Your task to perform on an android device: Open Chrome and go to settings Image 0: 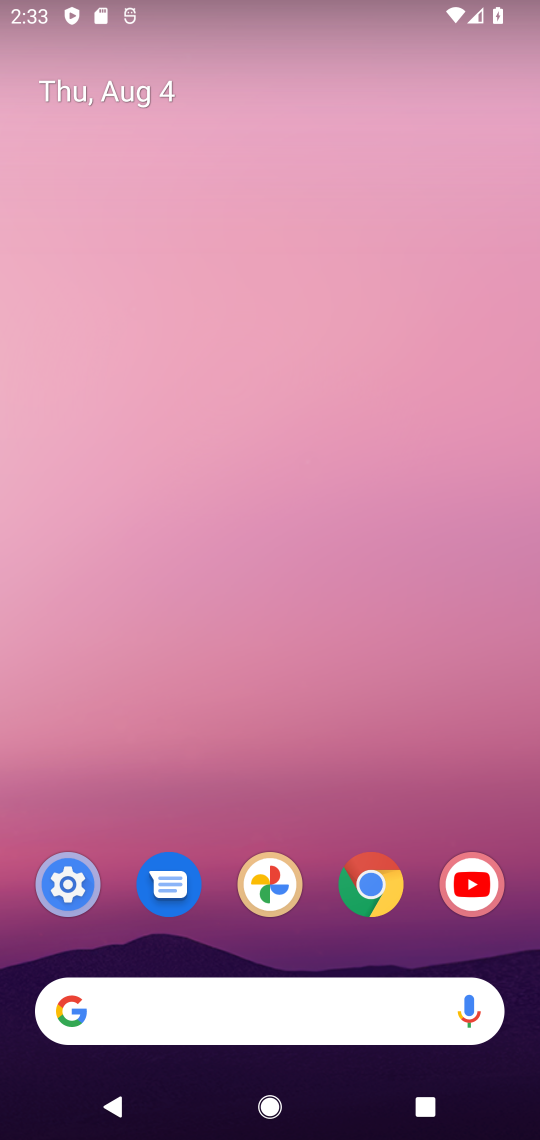
Step 0: drag from (289, 891) to (369, 337)
Your task to perform on an android device: Open Chrome and go to settings Image 1: 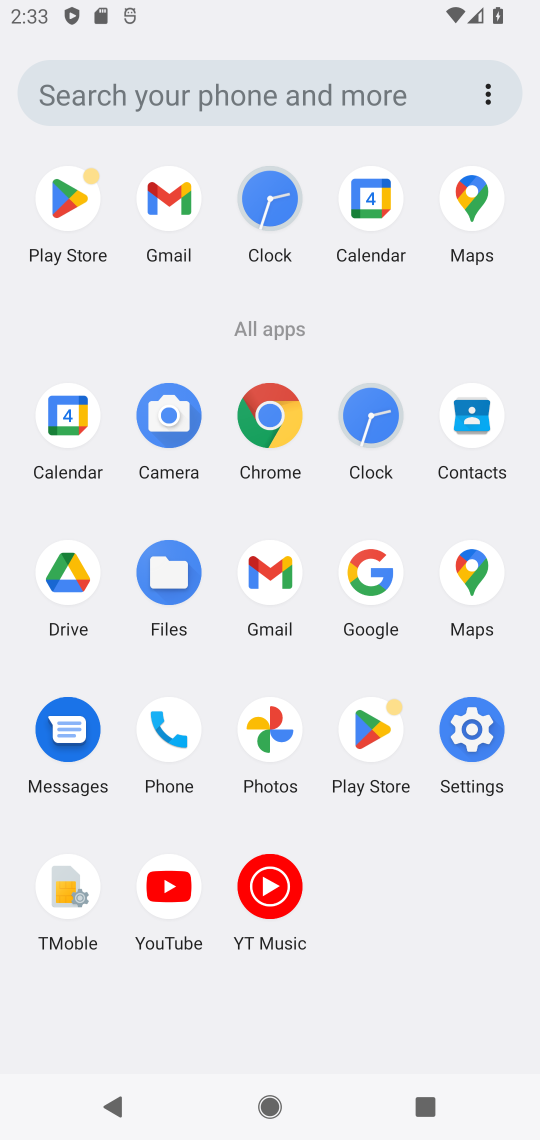
Step 1: click (266, 414)
Your task to perform on an android device: Open Chrome and go to settings Image 2: 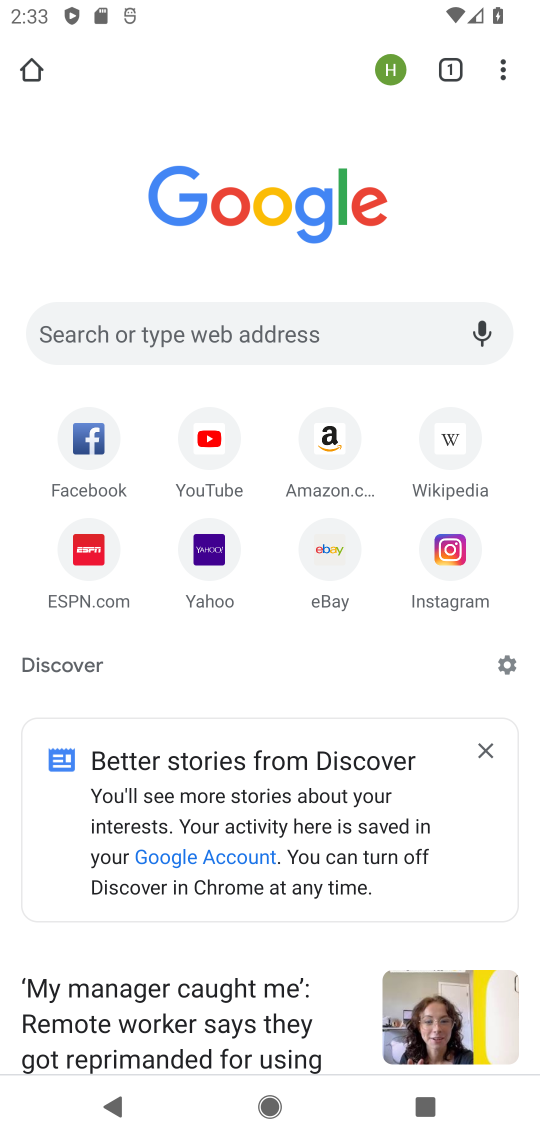
Step 2: click (518, 73)
Your task to perform on an android device: Open Chrome and go to settings Image 3: 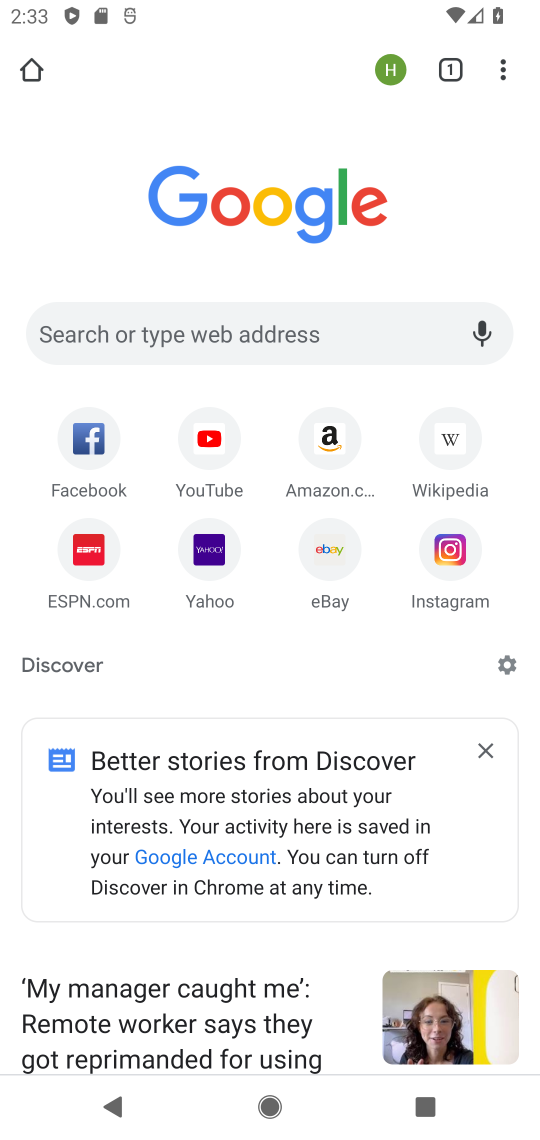
Step 3: click (518, 73)
Your task to perform on an android device: Open Chrome and go to settings Image 4: 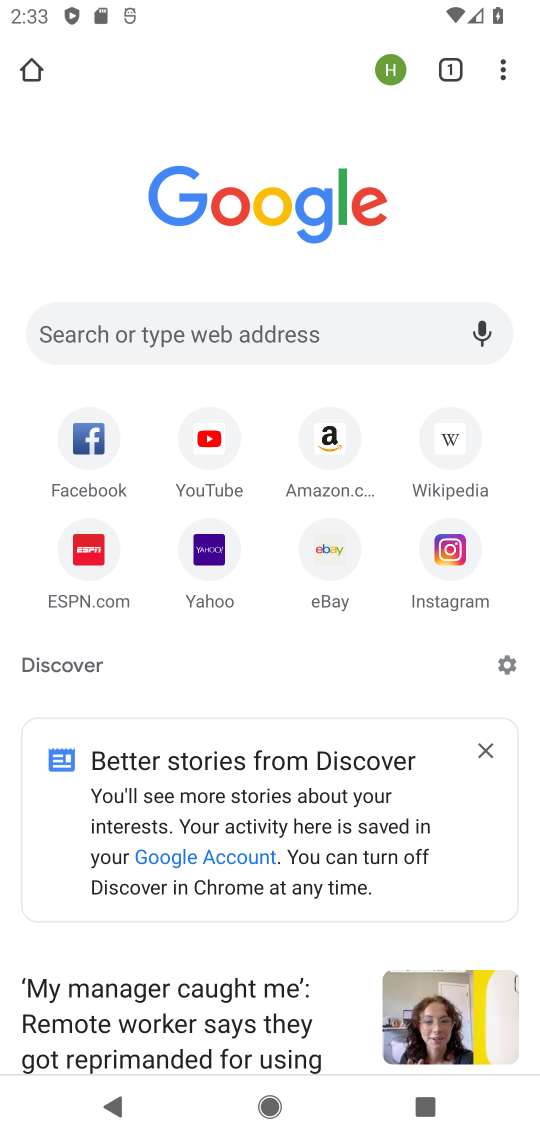
Step 4: click (521, 48)
Your task to perform on an android device: Open Chrome and go to settings Image 5: 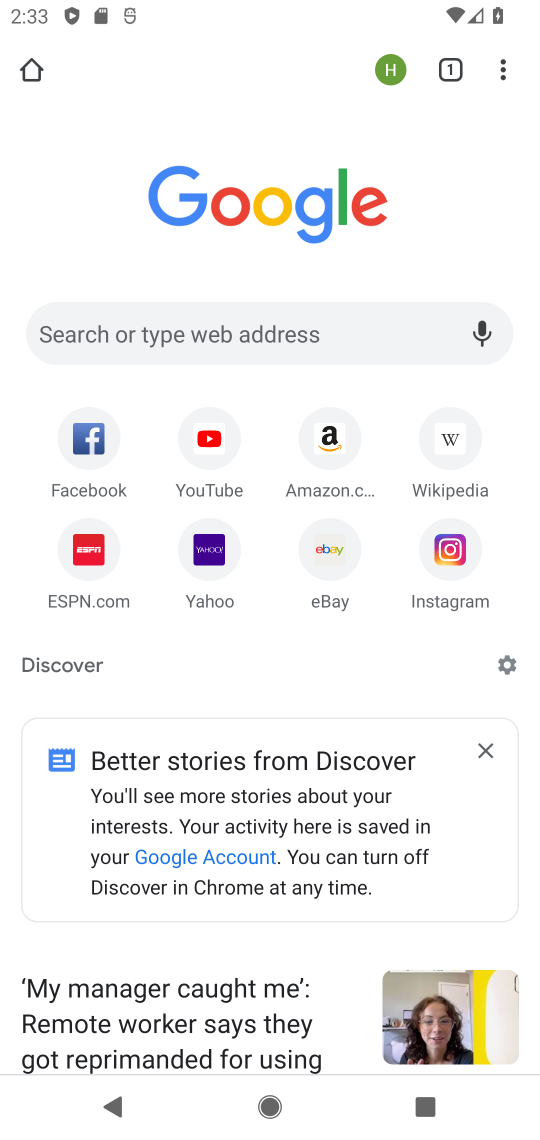
Step 5: click (514, 61)
Your task to perform on an android device: Open Chrome and go to settings Image 6: 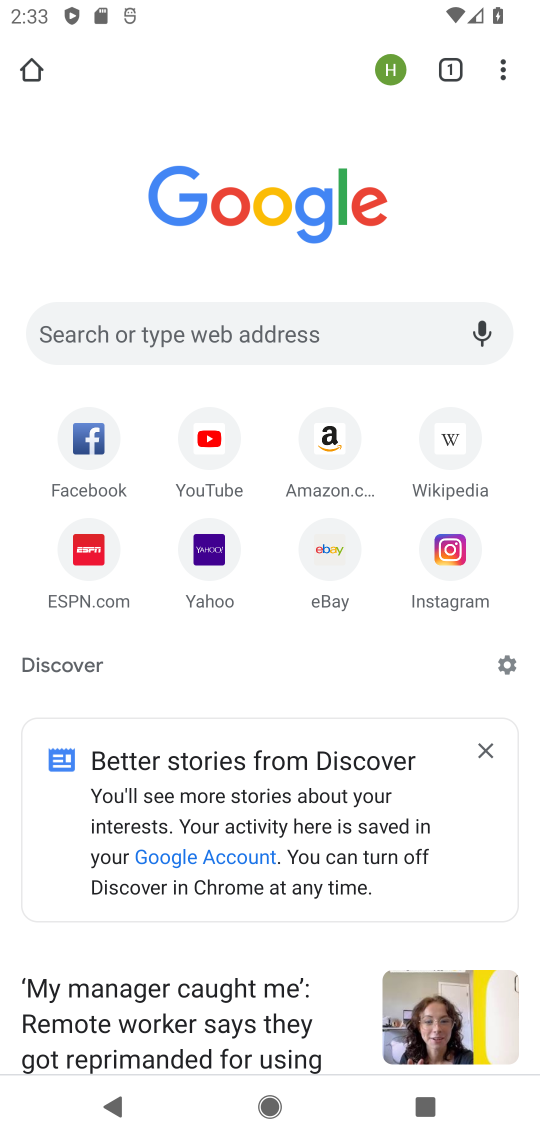
Step 6: click (498, 67)
Your task to perform on an android device: Open Chrome and go to settings Image 7: 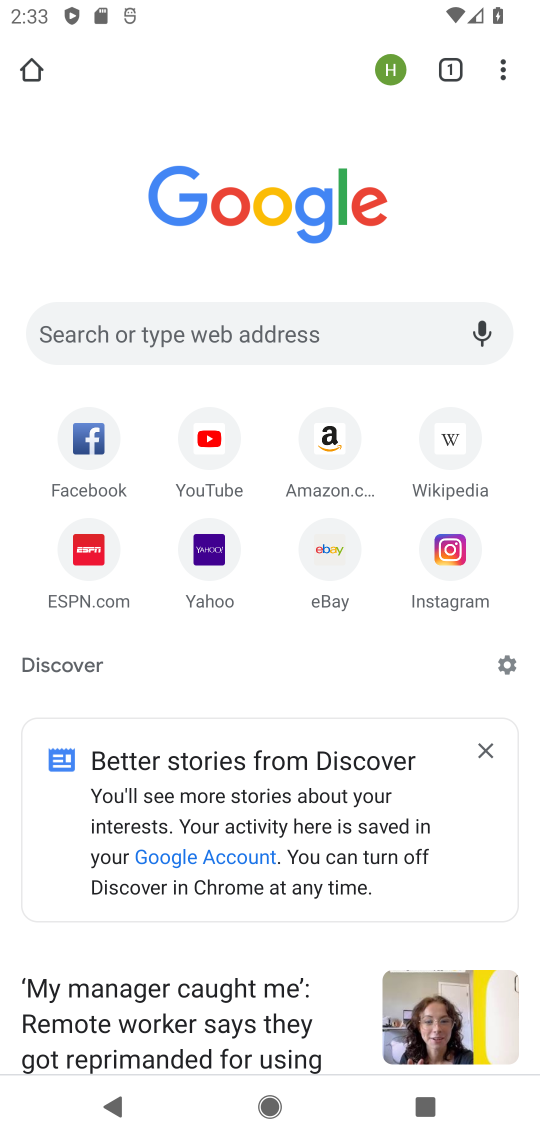
Step 7: click (482, 86)
Your task to perform on an android device: Open Chrome and go to settings Image 8: 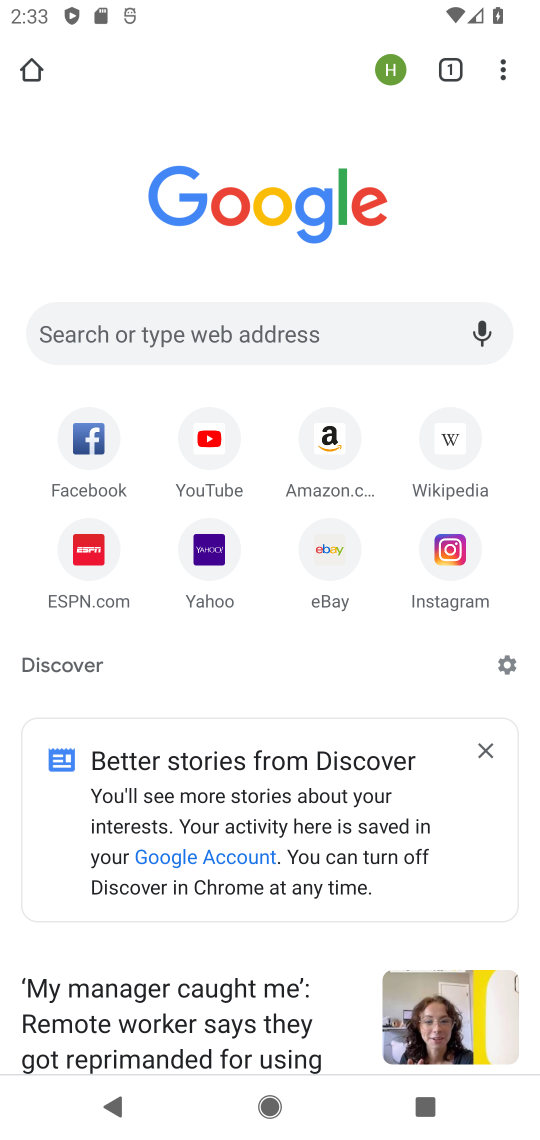
Step 8: click (504, 62)
Your task to perform on an android device: Open Chrome and go to settings Image 9: 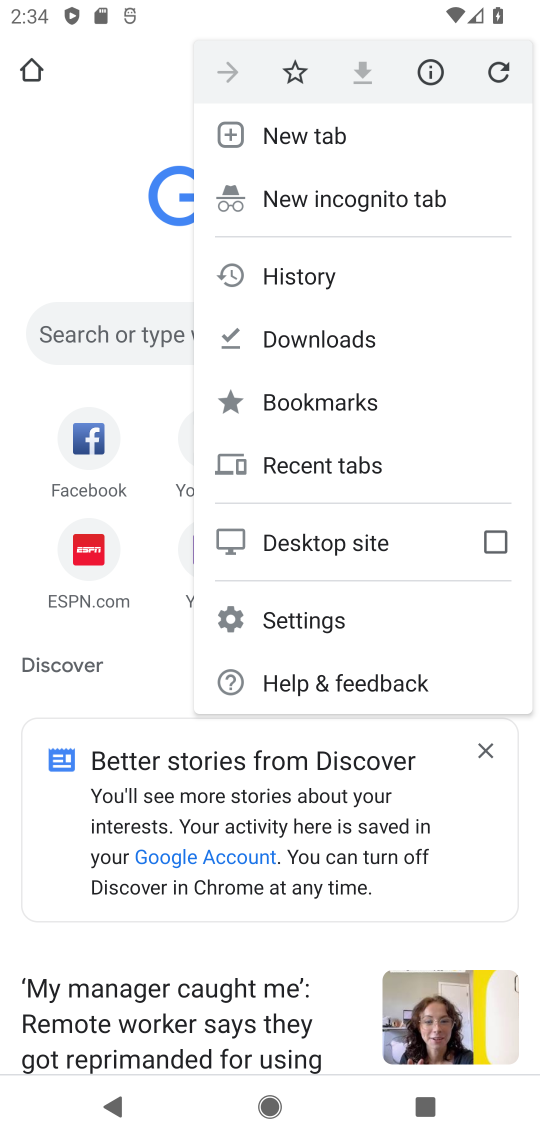
Step 9: click (284, 622)
Your task to perform on an android device: Open Chrome and go to settings Image 10: 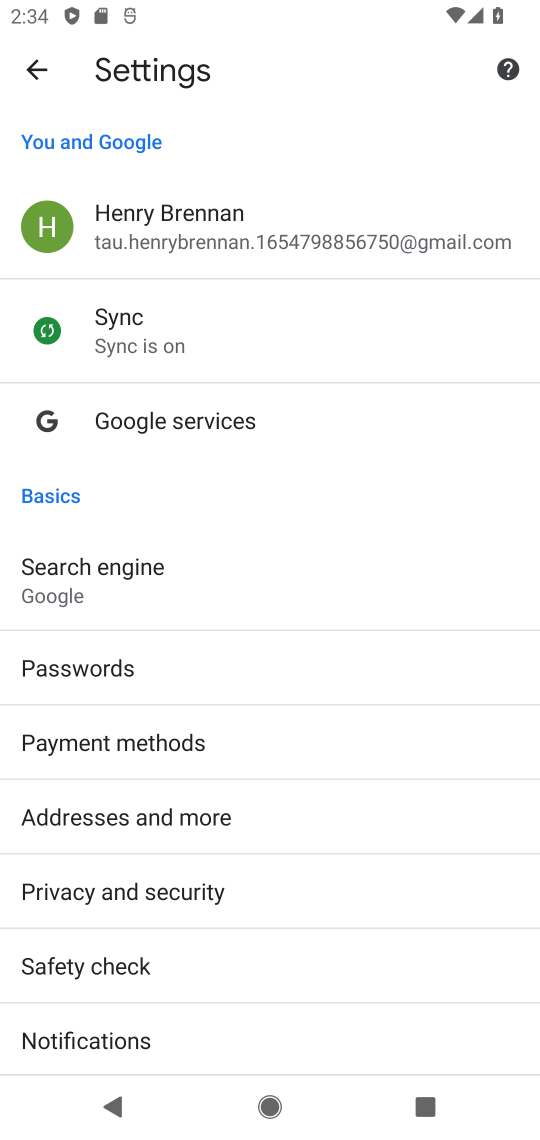
Step 10: task complete